Your task to perform on an android device: check storage Image 0: 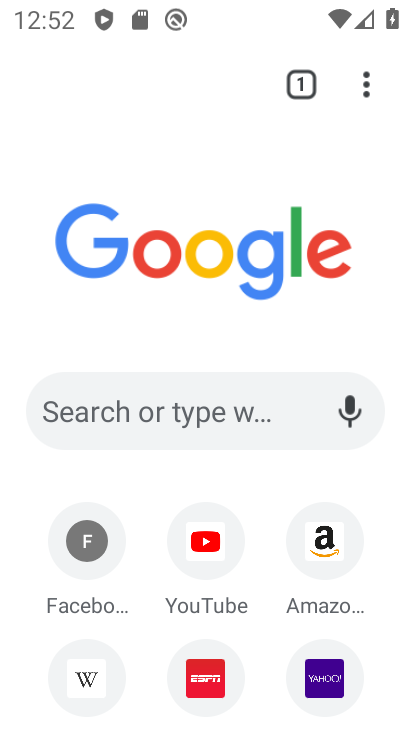
Step 0: press home button
Your task to perform on an android device: check storage Image 1: 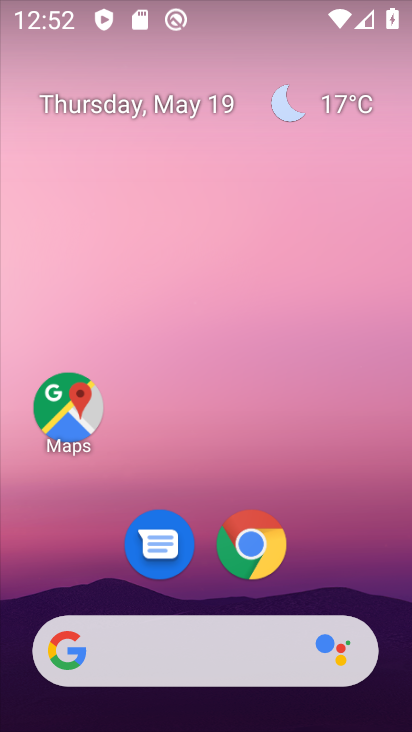
Step 1: drag from (209, 722) to (204, 243)
Your task to perform on an android device: check storage Image 2: 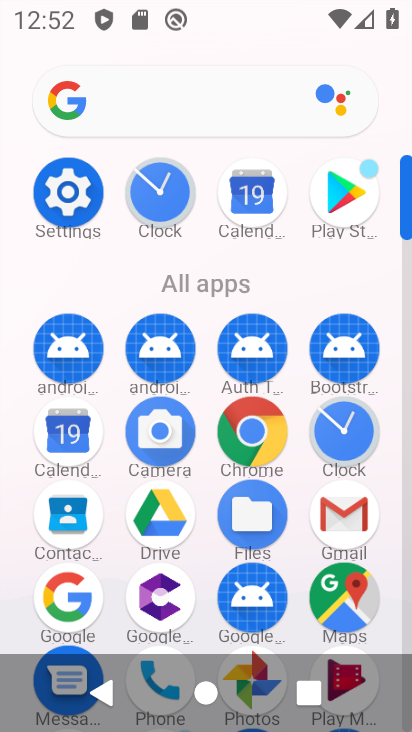
Step 2: click (60, 191)
Your task to perform on an android device: check storage Image 3: 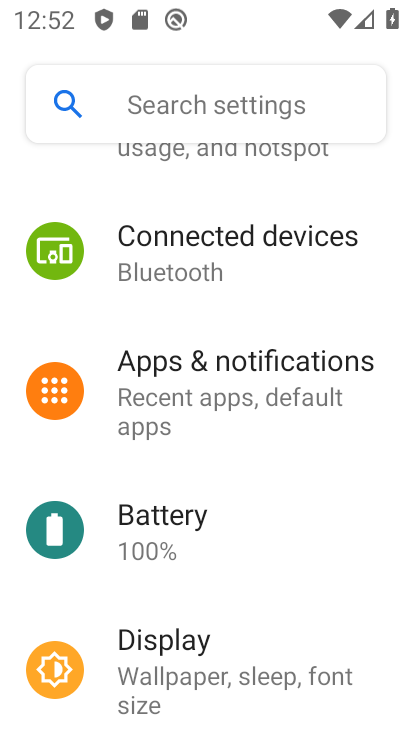
Step 3: drag from (157, 630) to (158, 352)
Your task to perform on an android device: check storage Image 4: 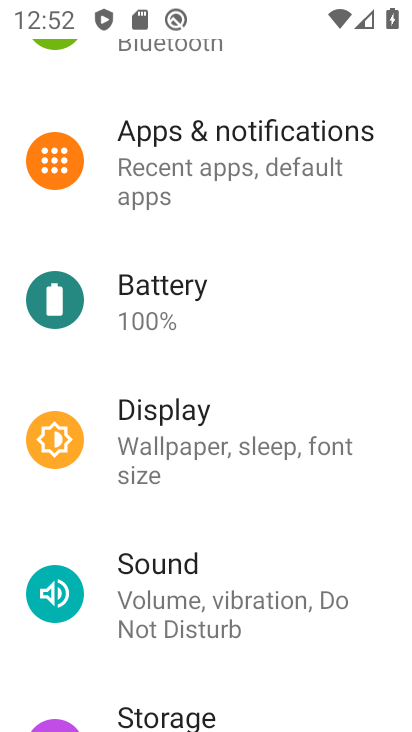
Step 4: drag from (217, 588) to (214, 290)
Your task to perform on an android device: check storage Image 5: 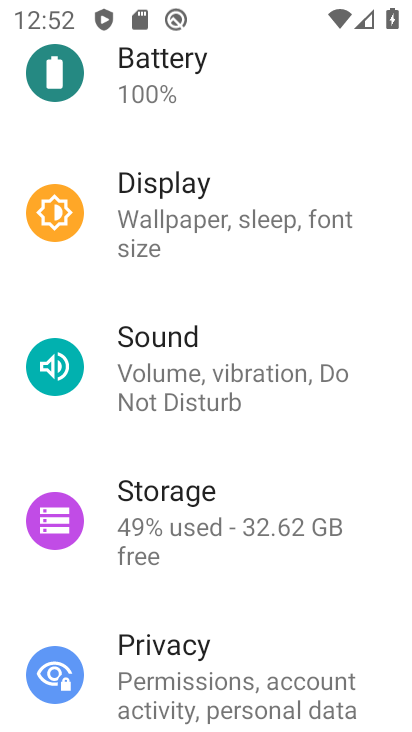
Step 5: click (162, 511)
Your task to perform on an android device: check storage Image 6: 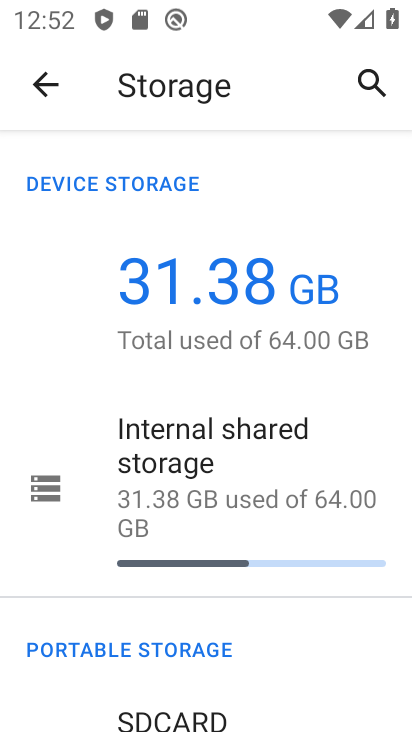
Step 6: task complete